Your task to perform on an android device: Open privacy settings Image 0: 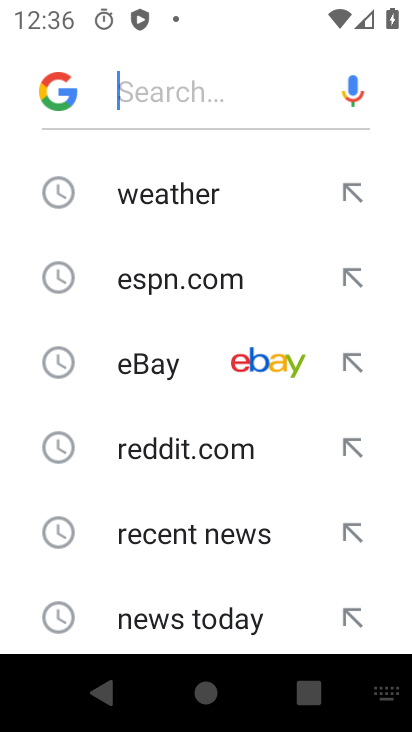
Step 0: click (184, 105)
Your task to perform on an android device: Open privacy settings Image 1: 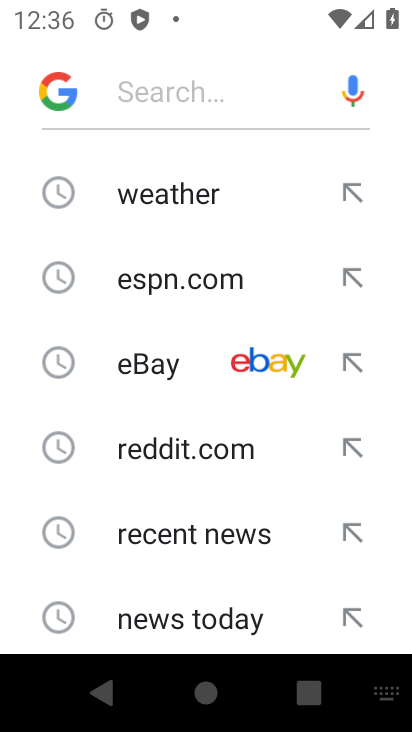
Step 1: press home button
Your task to perform on an android device: Open privacy settings Image 2: 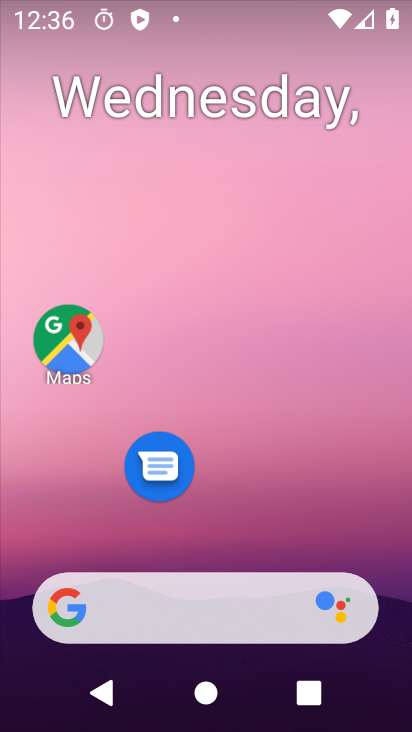
Step 2: drag from (280, 548) to (182, 203)
Your task to perform on an android device: Open privacy settings Image 3: 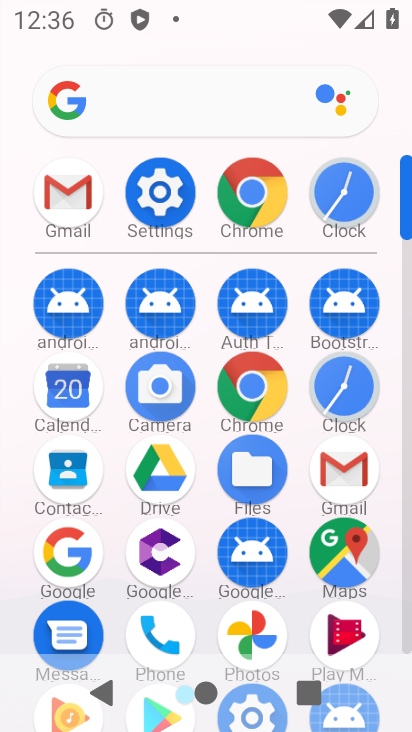
Step 3: click (239, 172)
Your task to perform on an android device: Open privacy settings Image 4: 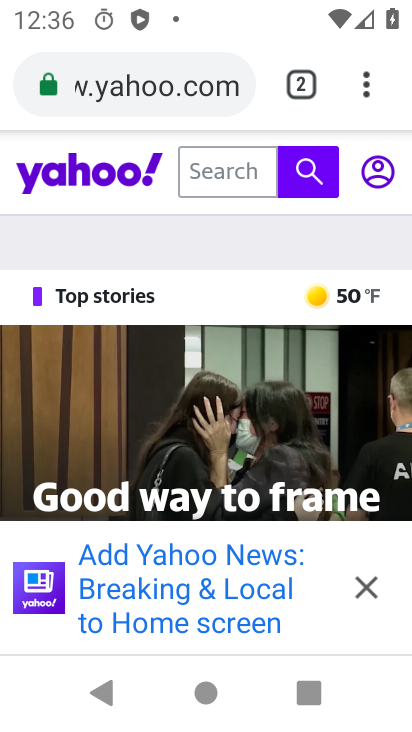
Step 4: click (359, 84)
Your task to perform on an android device: Open privacy settings Image 5: 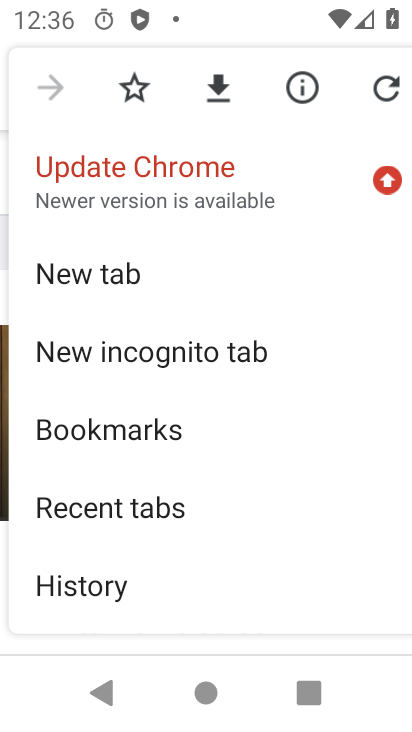
Step 5: drag from (153, 559) to (199, 297)
Your task to perform on an android device: Open privacy settings Image 6: 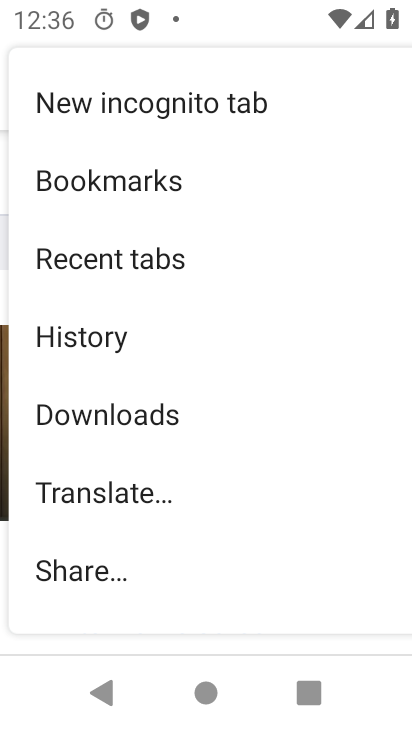
Step 6: drag from (151, 538) to (234, 206)
Your task to perform on an android device: Open privacy settings Image 7: 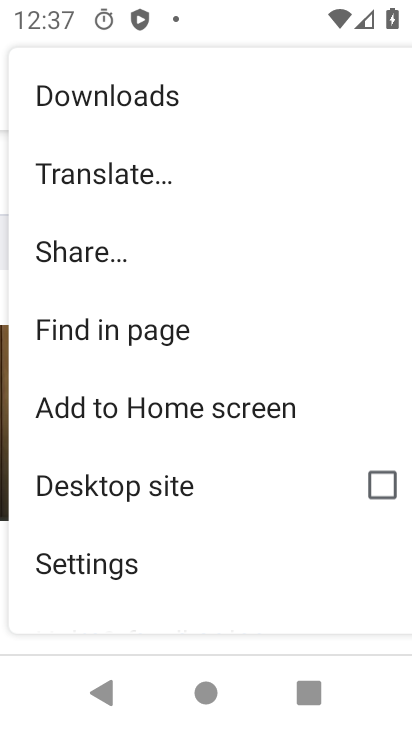
Step 7: click (117, 534)
Your task to perform on an android device: Open privacy settings Image 8: 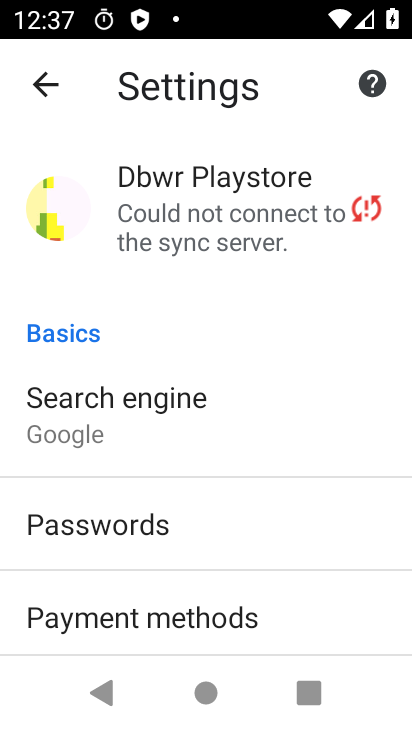
Step 8: drag from (202, 538) to (220, 285)
Your task to perform on an android device: Open privacy settings Image 9: 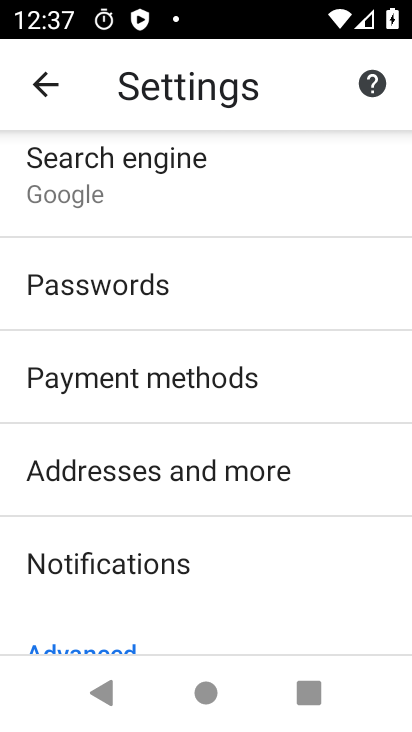
Step 9: drag from (156, 613) to (200, 283)
Your task to perform on an android device: Open privacy settings Image 10: 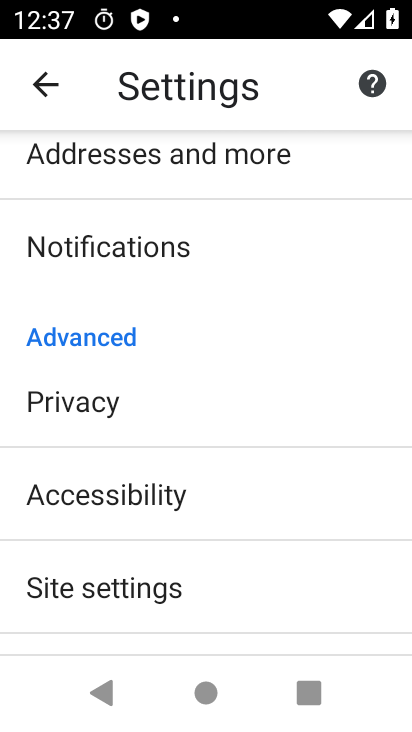
Step 10: click (118, 426)
Your task to perform on an android device: Open privacy settings Image 11: 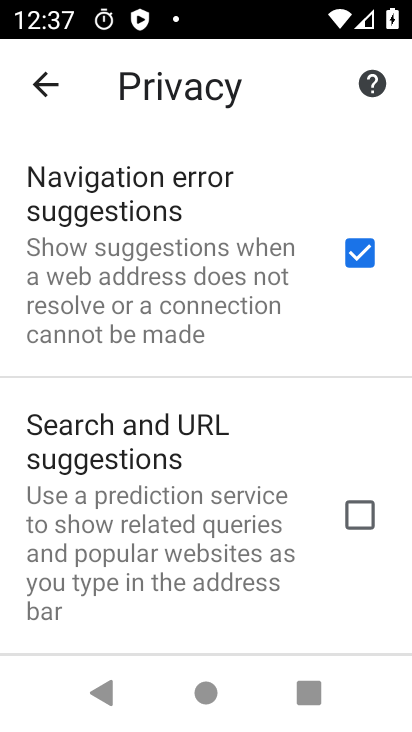
Step 11: task complete